Your task to perform on an android device: change the clock display to analog Image 0: 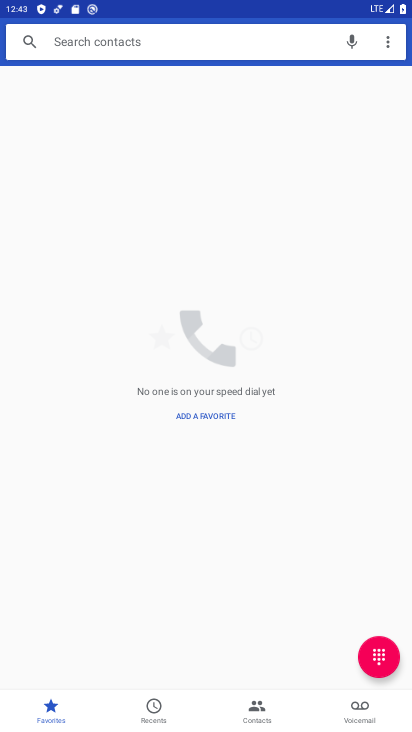
Step 0: press home button
Your task to perform on an android device: change the clock display to analog Image 1: 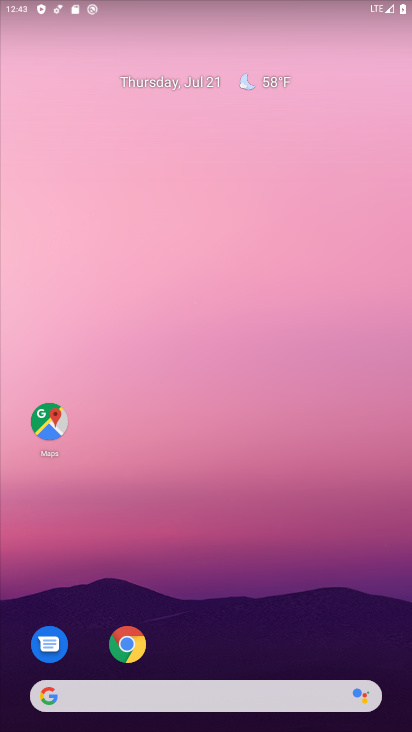
Step 1: drag from (349, 572) to (376, 197)
Your task to perform on an android device: change the clock display to analog Image 2: 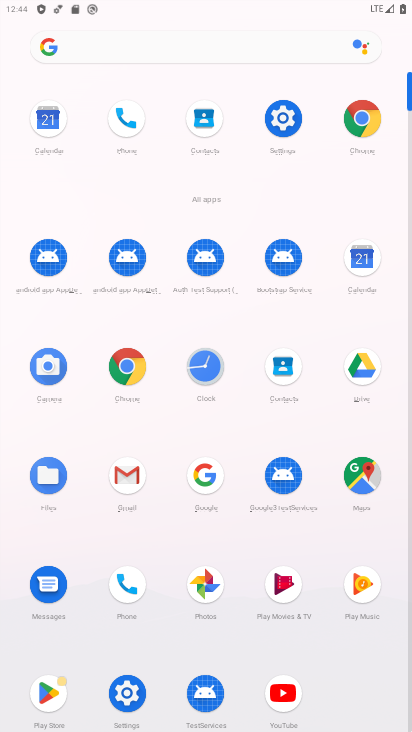
Step 2: click (211, 375)
Your task to perform on an android device: change the clock display to analog Image 3: 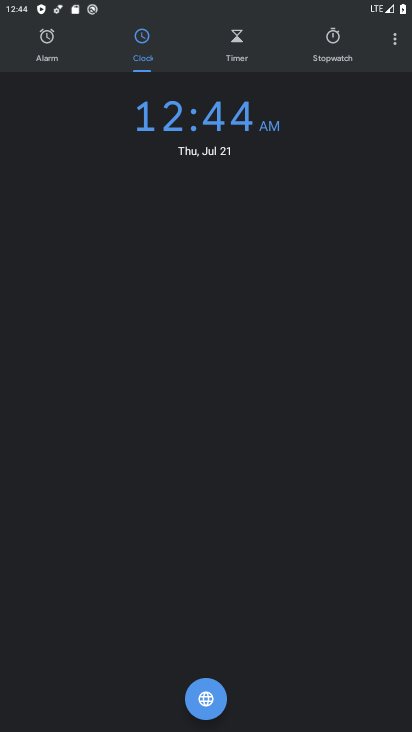
Step 3: click (392, 39)
Your task to perform on an android device: change the clock display to analog Image 4: 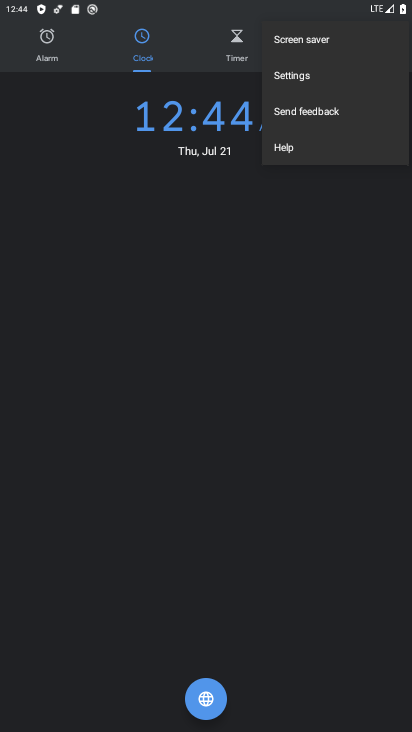
Step 4: click (353, 83)
Your task to perform on an android device: change the clock display to analog Image 5: 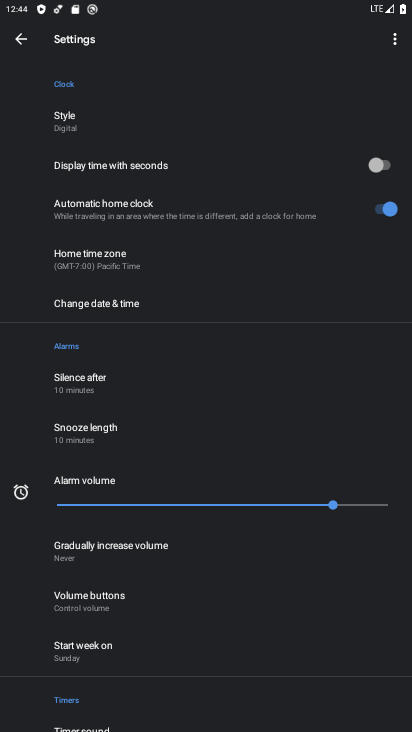
Step 5: drag from (307, 391) to (307, 305)
Your task to perform on an android device: change the clock display to analog Image 6: 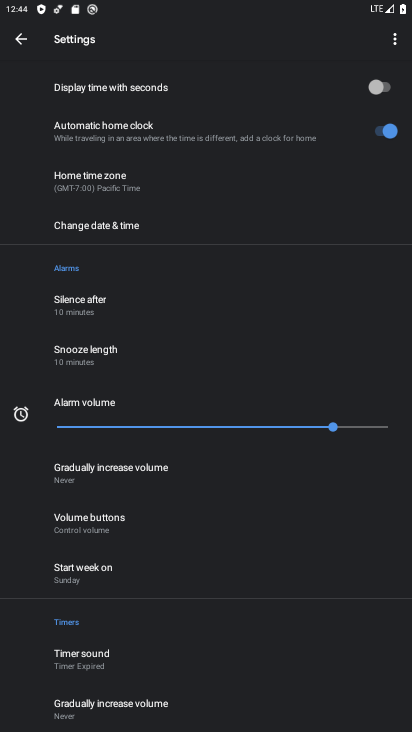
Step 6: drag from (302, 491) to (310, 387)
Your task to perform on an android device: change the clock display to analog Image 7: 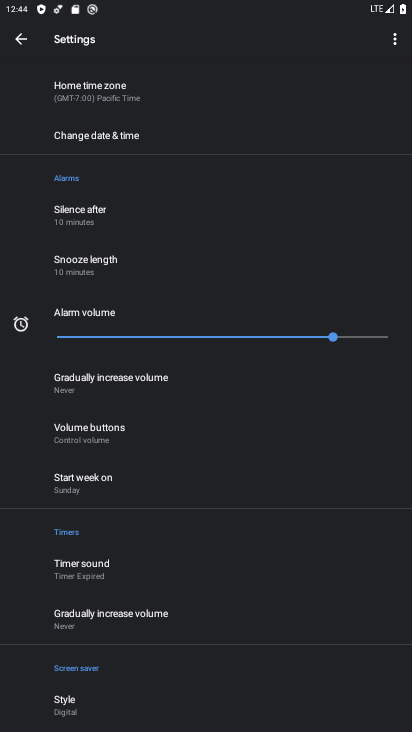
Step 7: drag from (311, 516) to (315, 420)
Your task to perform on an android device: change the clock display to analog Image 8: 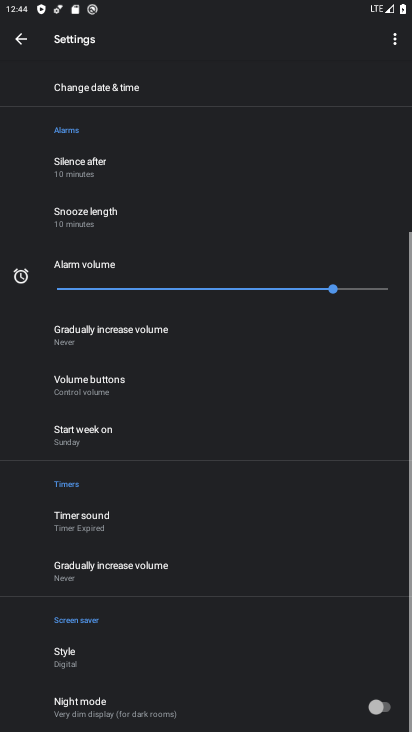
Step 8: drag from (314, 365) to (307, 434)
Your task to perform on an android device: change the clock display to analog Image 9: 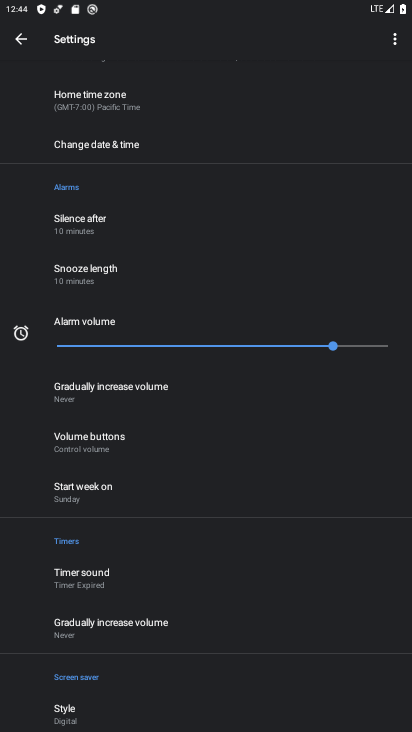
Step 9: drag from (304, 290) to (302, 382)
Your task to perform on an android device: change the clock display to analog Image 10: 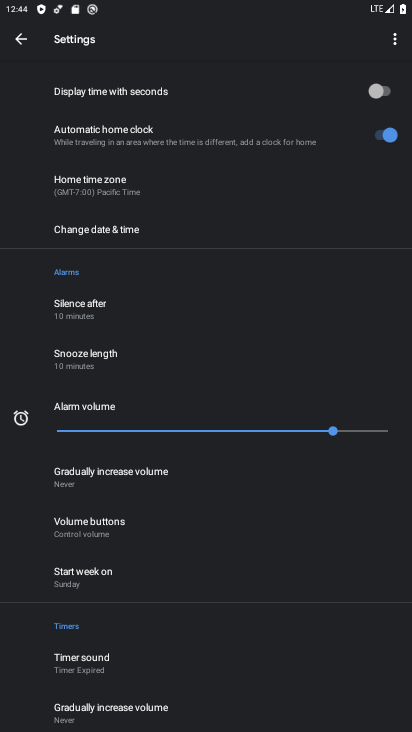
Step 10: drag from (302, 252) to (302, 354)
Your task to perform on an android device: change the clock display to analog Image 11: 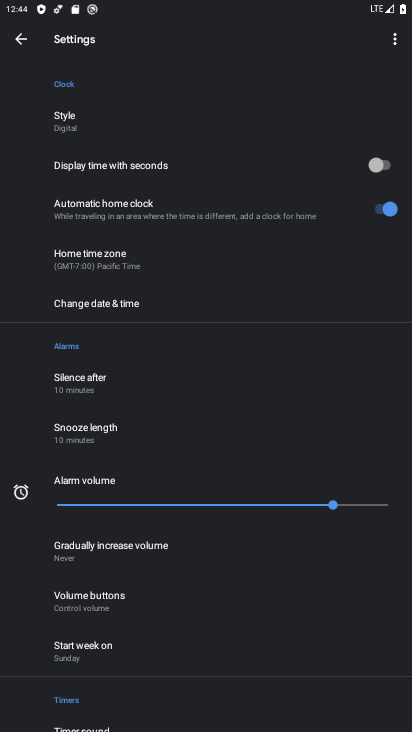
Step 11: click (106, 127)
Your task to perform on an android device: change the clock display to analog Image 12: 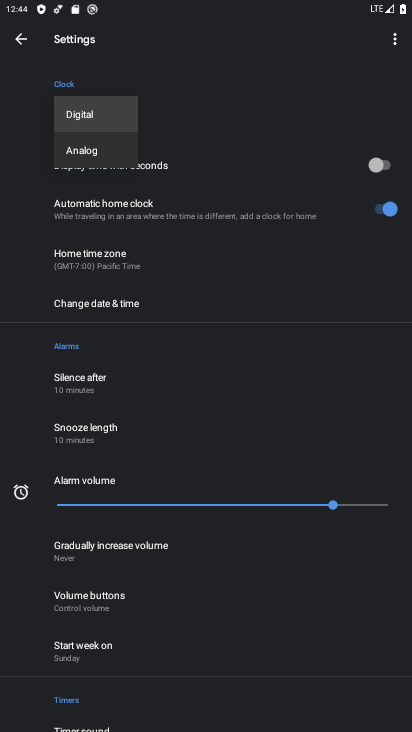
Step 12: click (103, 144)
Your task to perform on an android device: change the clock display to analog Image 13: 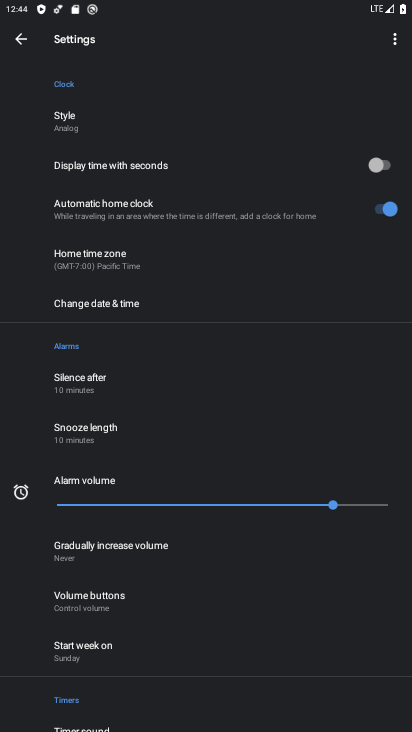
Step 13: task complete